Your task to perform on an android device: What's the weather going to be this weekend? Image 0: 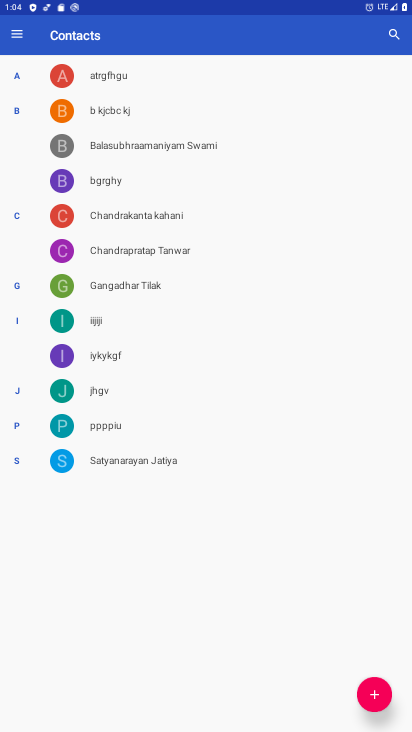
Step 0: click (80, 424)
Your task to perform on an android device: What's the weather going to be this weekend? Image 1: 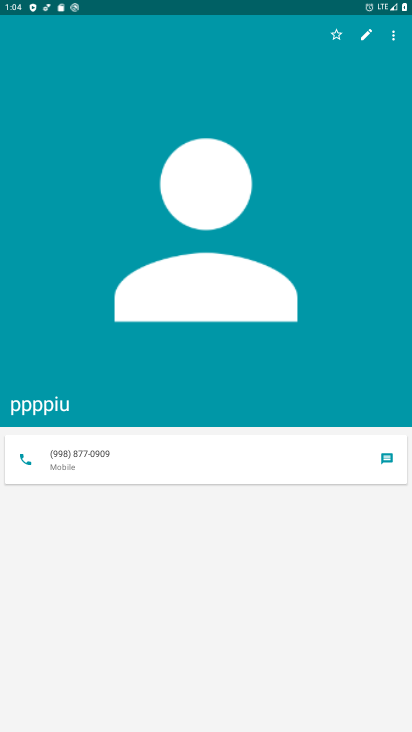
Step 1: press home button
Your task to perform on an android device: What's the weather going to be this weekend? Image 2: 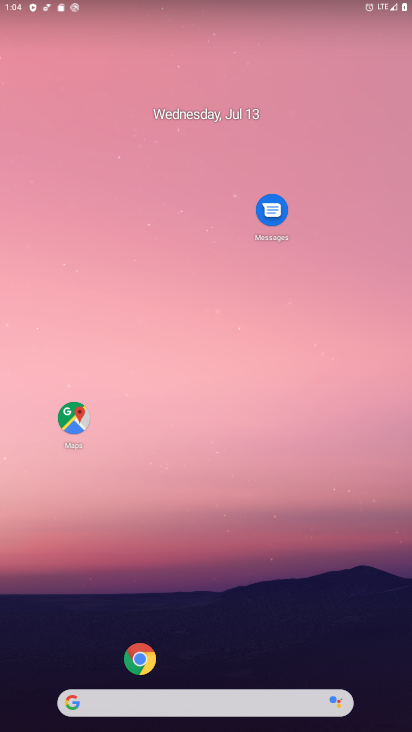
Step 2: click (115, 702)
Your task to perform on an android device: What's the weather going to be this weekend? Image 3: 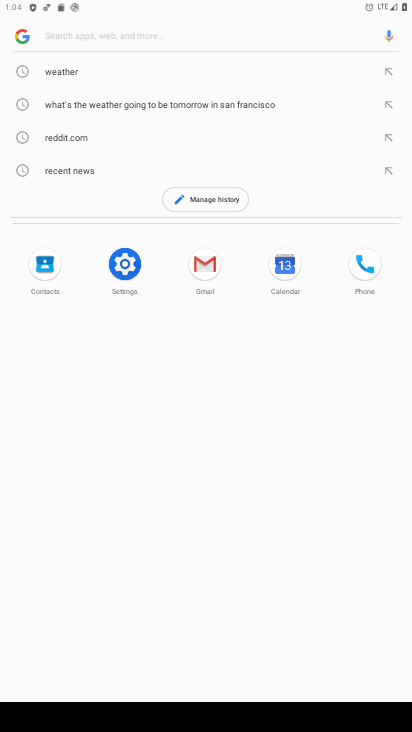
Step 3: type "What's the weather going to be this weekend?"
Your task to perform on an android device: What's the weather going to be this weekend? Image 4: 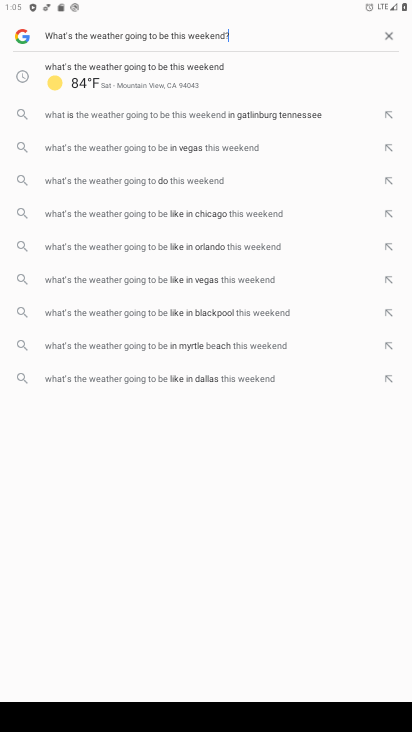
Step 4: type ""
Your task to perform on an android device: What's the weather going to be this weekend? Image 5: 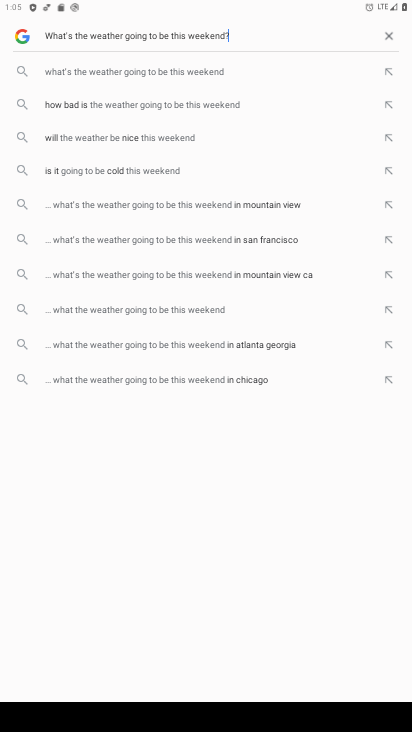
Step 5: type ""
Your task to perform on an android device: What's the weather going to be this weekend? Image 6: 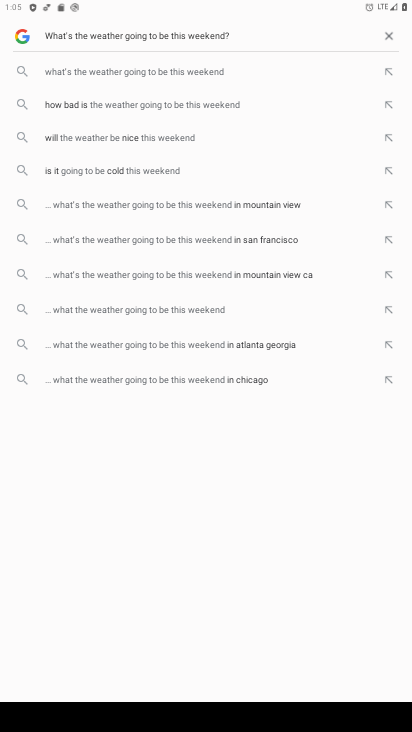
Step 6: type ""
Your task to perform on an android device: What's the weather going to be this weekend? Image 7: 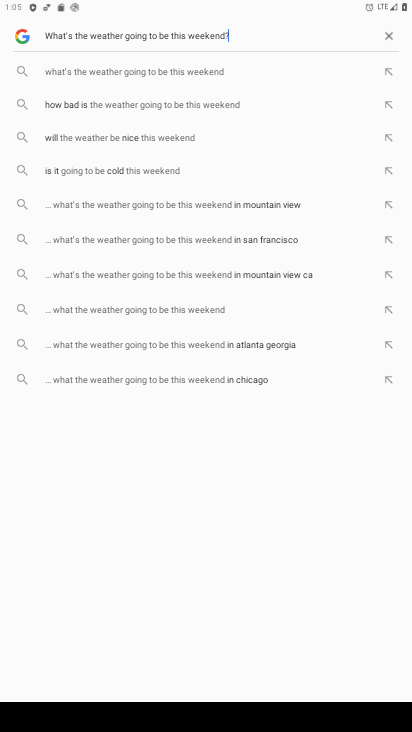
Step 7: type ""
Your task to perform on an android device: What's the weather going to be this weekend? Image 8: 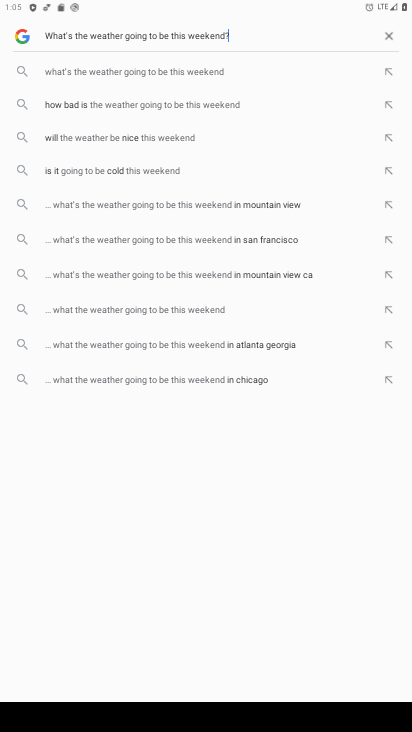
Step 8: task complete